Your task to perform on an android device: find which apps use the phone's location Image 0: 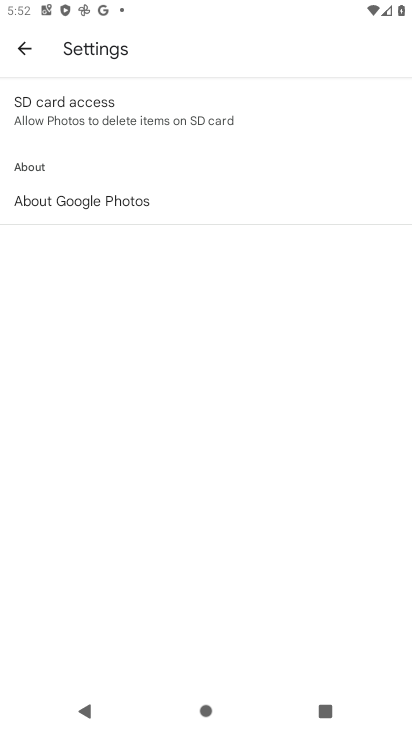
Step 0: press home button
Your task to perform on an android device: find which apps use the phone's location Image 1: 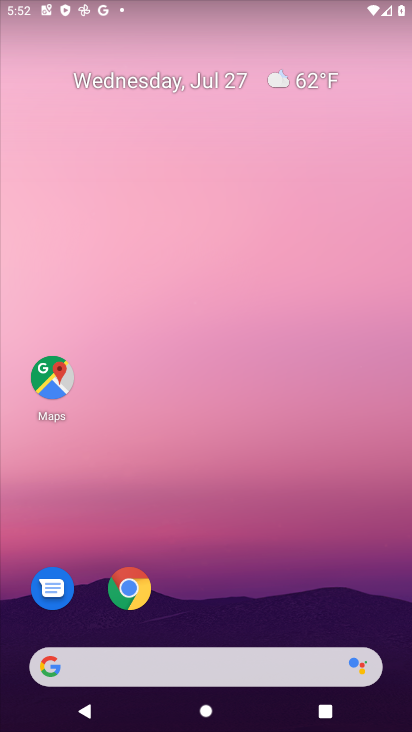
Step 1: drag from (184, 615) to (284, 53)
Your task to perform on an android device: find which apps use the phone's location Image 2: 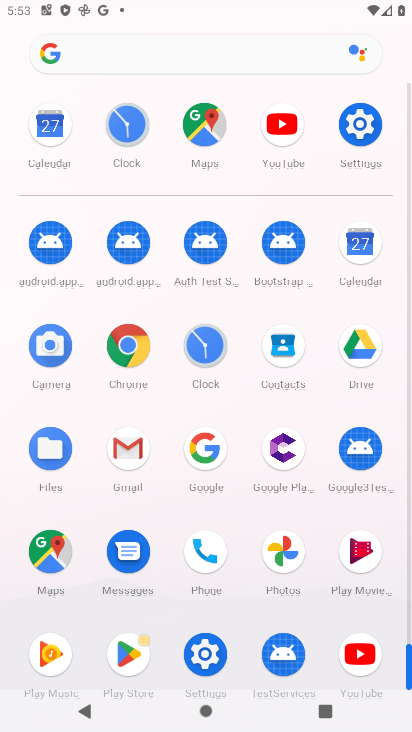
Step 2: click (358, 131)
Your task to perform on an android device: find which apps use the phone's location Image 3: 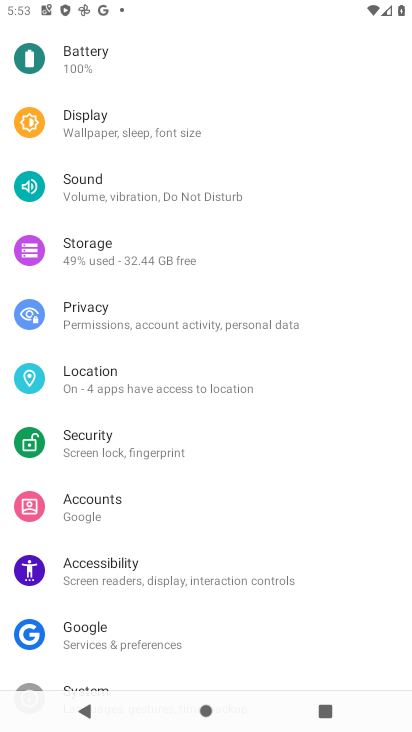
Step 3: drag from (118, 651) to (146, 421)
Your task to perform on an android device: find which apps use the phone's location Image 4: 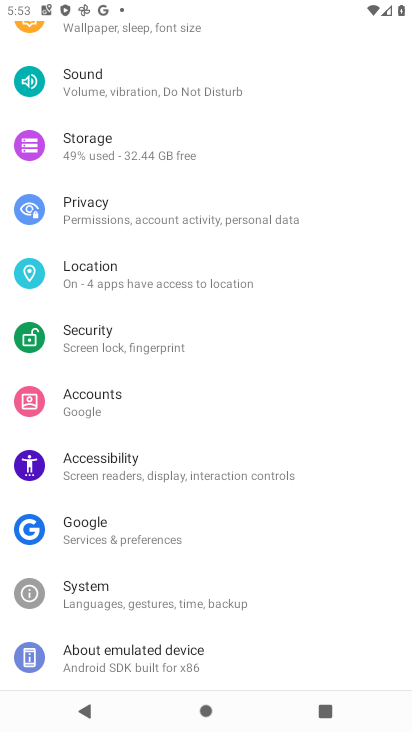
Step 4: drag from (208, 338) to (155, 696)
Your task to perform on an android device: find which apps use the phone's location Image 5: 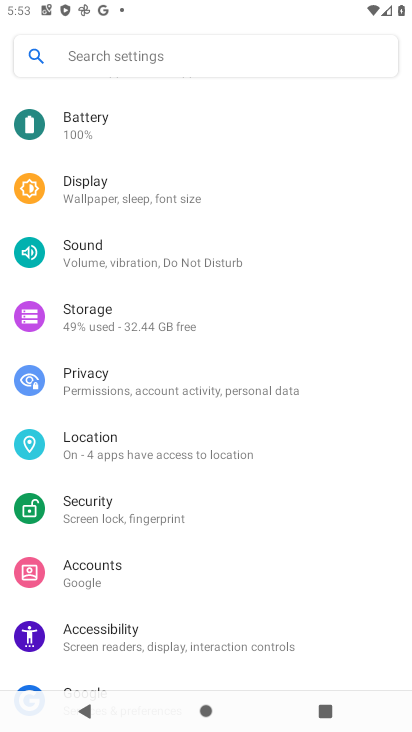
Step 5: click (88, 439)
Your task to perform on an android device: find which apps use the phone's location Image 6: 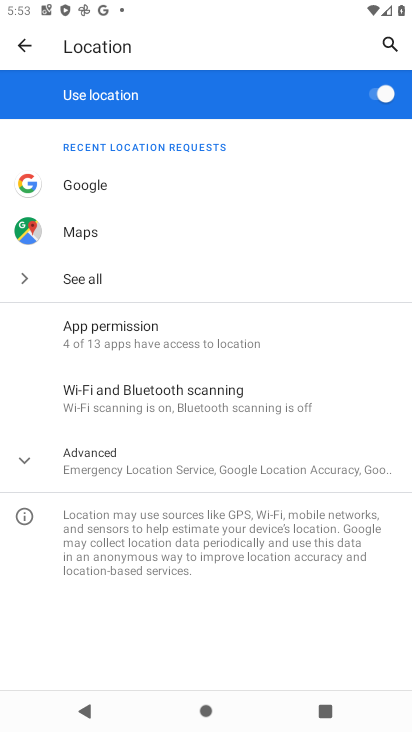
Step 6: click (101, 321)
Your task to perform on an android device: find which apps use the phone's location Image 7: 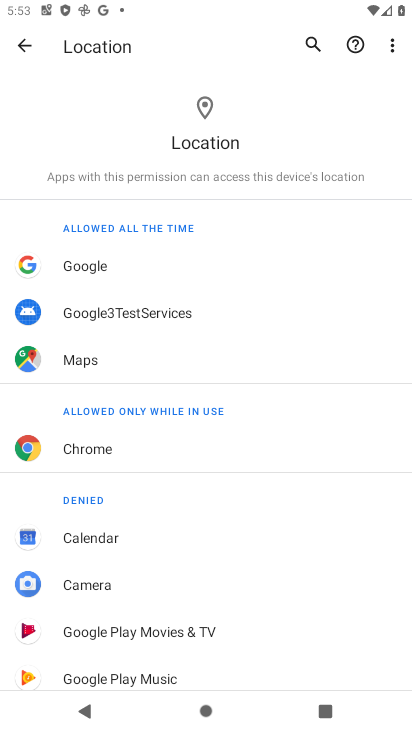
Step 7: task complete